Your task to perform on an android device: turn on translation in the chrome app Image 0: 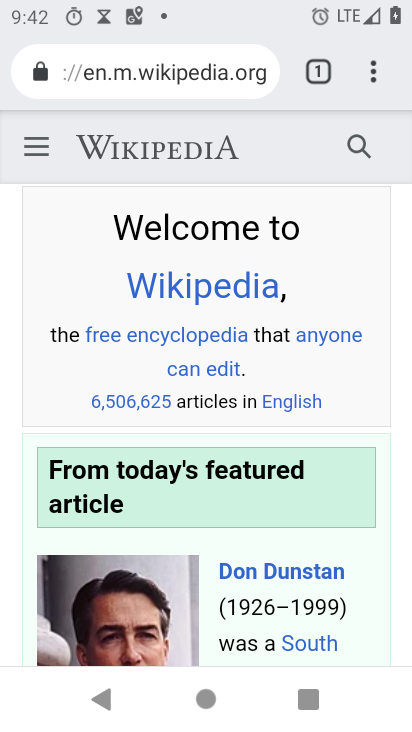
Step 0: press home button
Your task to perform on an android device: turn on translation in the chrome app Image 1: 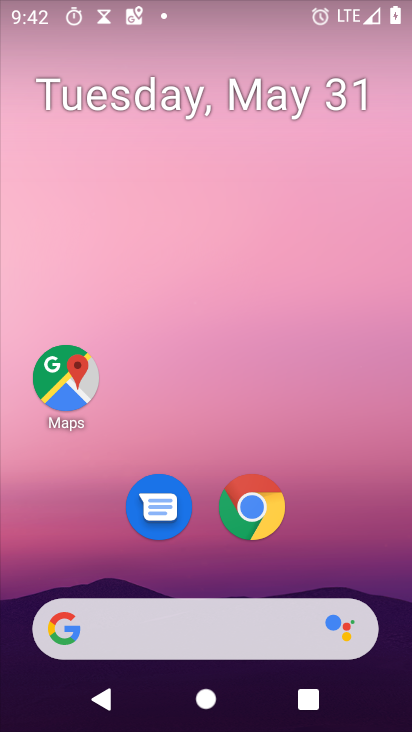
Step 1: click (261, 528)
Your task to perform on an android device: turn on translation in the chrome app Image 2: 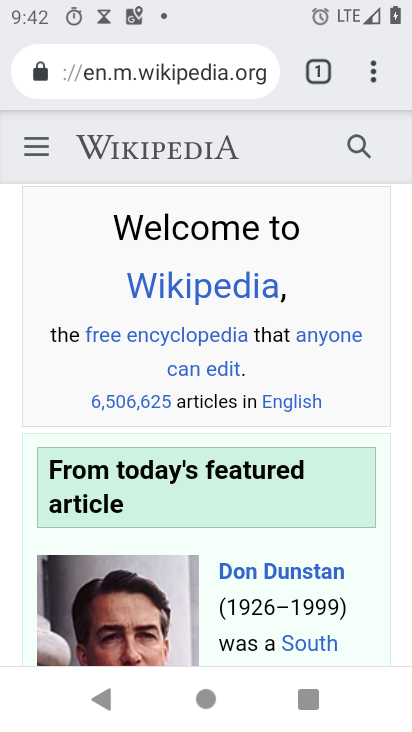
Step 2: click (377, 74)
Your task to perform on an android device: turn on translation in the chrome app Image 3: 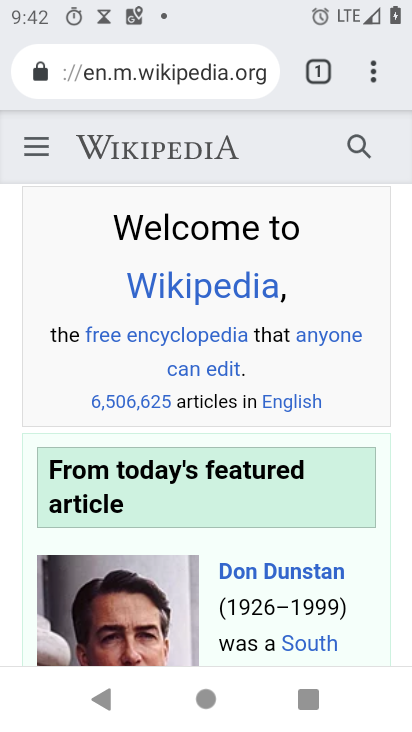
Step 3: click (400, 69)
Your task to perform on an android device: turn on translation in the chrome app Image 4: 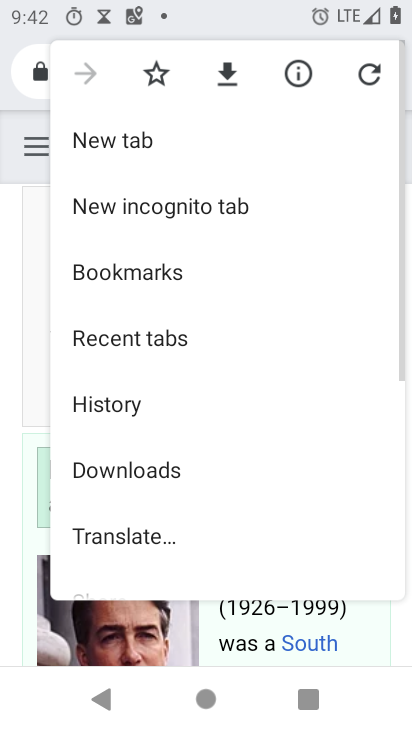
Step 4: drag from (74, 530) to (286, 178)
Your task to perform on an android device: turn on translation in the chrome app Image 5: 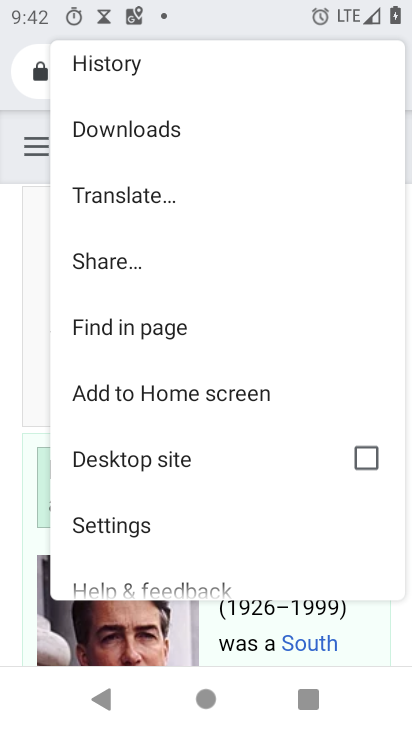
Step 5: click (132, 516)
Your task to perform on an android device: turn on translation in the chrome app Image 6: 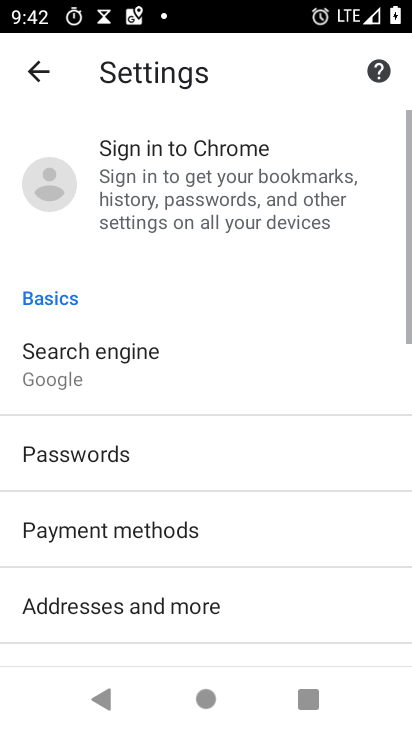
Step 6: drag from (40, 524) to (273, 162)
Your task to perform on an android device: turn on translation in the chrome app Image 7: 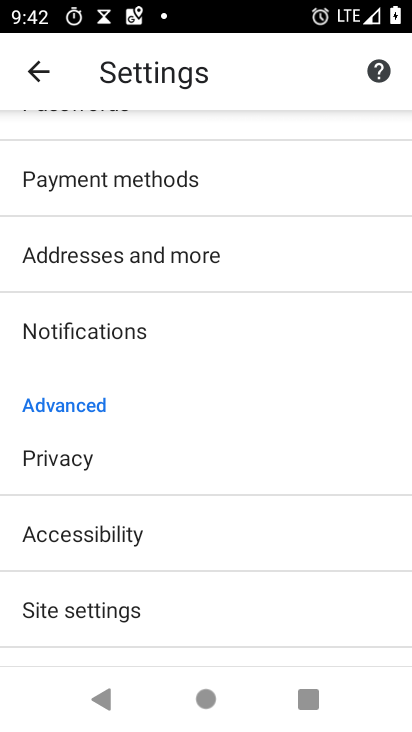
Step 7: drag from (42, 605) to (244, 247)
Your task to perform on an android device: turn on translation in the chrome app Image 8: 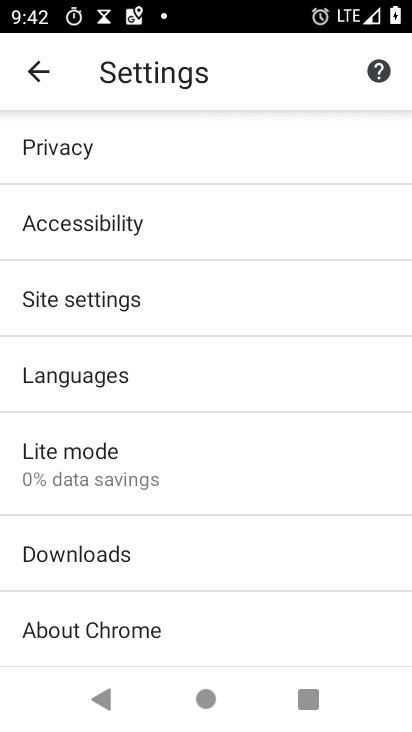
Step 8: click (80, 393)
Your task to perform on an android device: turn on translation in the chrome app Image 9: 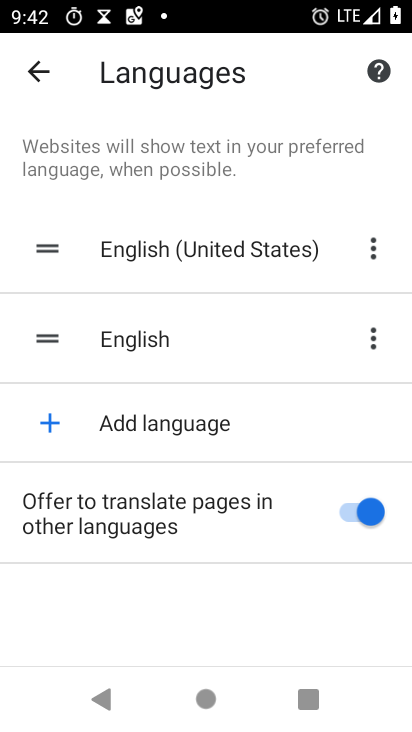
Step 9: task complete